Your task to perform on an android device: turn on showing notifications on the lock screen Image 0: 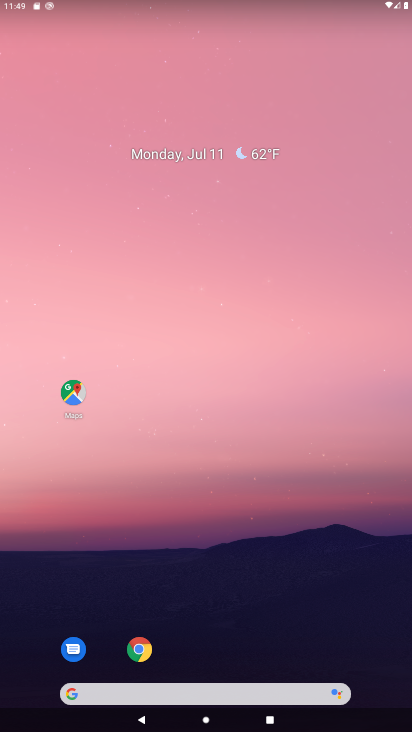
Step 0: drag from (263, 583) to (183, 153)
Your task to perform on an android device: turn on showing notifications on the lock screen Image 1: 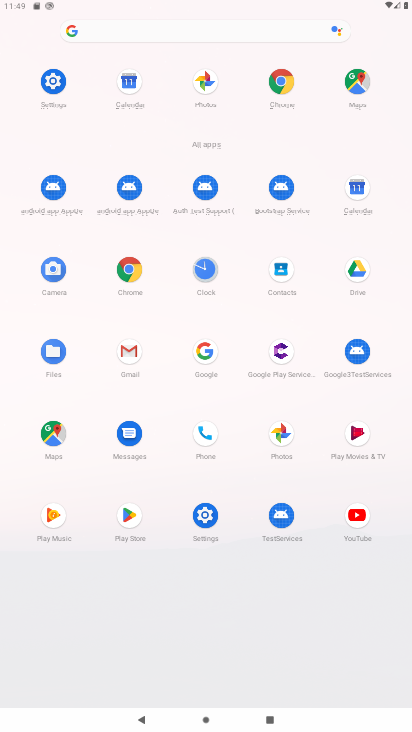
Step 1: click (50, 79)
Your task to perform on an android device: turn on showing notifications on the lock screen Image 2: 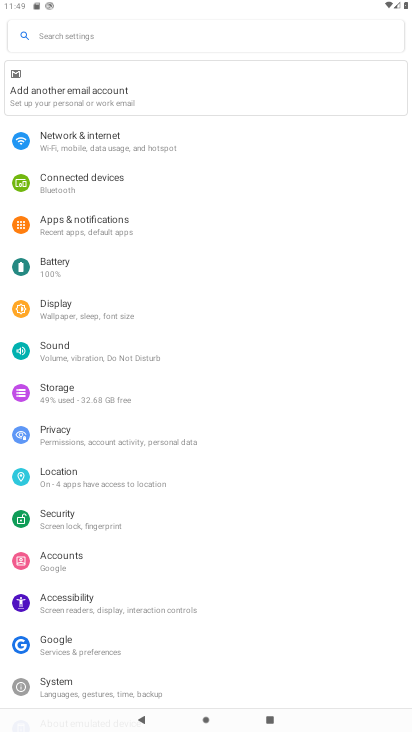
Step 2: click (87, 222)
Your task to perform on an android device: turn on showing notifications on the lock screen Image 3: 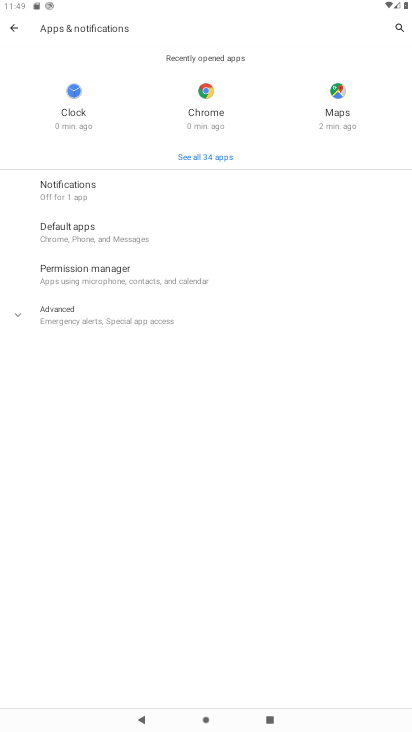
Step 3: click (74, 186)
Your task to perform on an android device: turn on showing notifications on the lock screen Image 4: 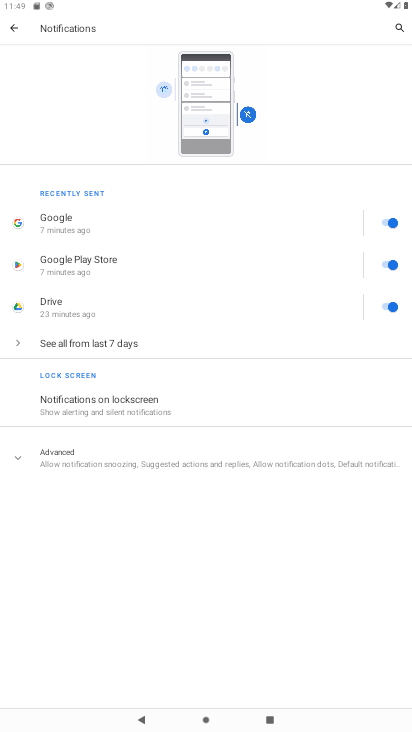
Step 4: click (93, 402)
Your task to perform on an android device: turn on showing notifications on the lock screen Image 5: 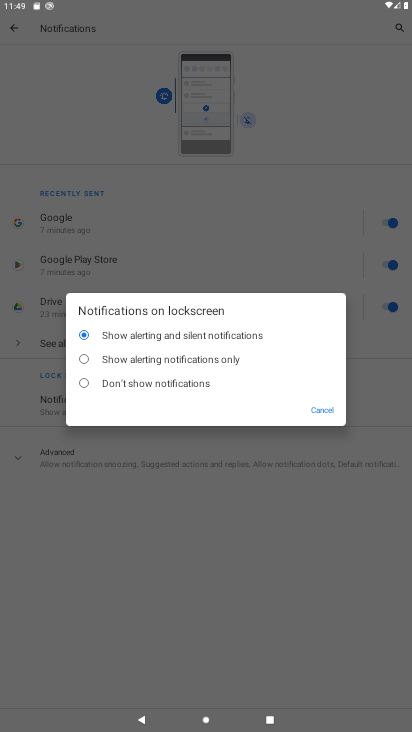
Step 5: task complete